Your task to perform on an android device: What's on my calendar today? Image 0: 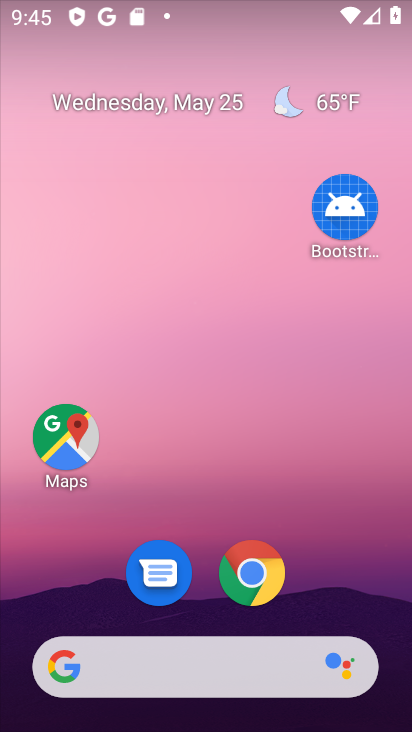
Step 0: drag from (337, 591) to (306, 88)
Your task to perform on an android device: What's on my calendar today? Image 1: 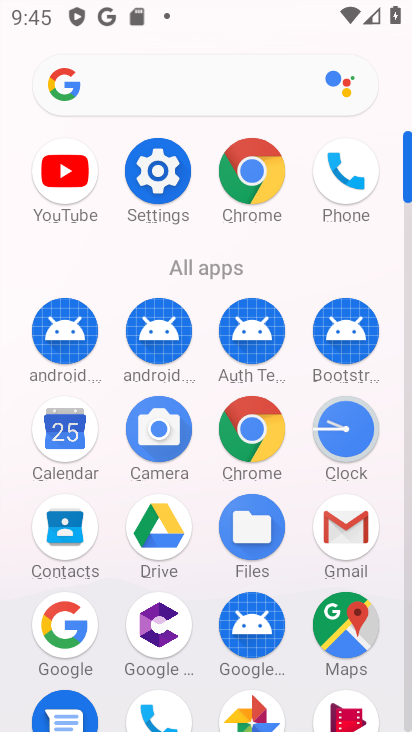
Step 1: click (63, 415)
Your task to perform on an android device: What's on my calendar today? Image 2: 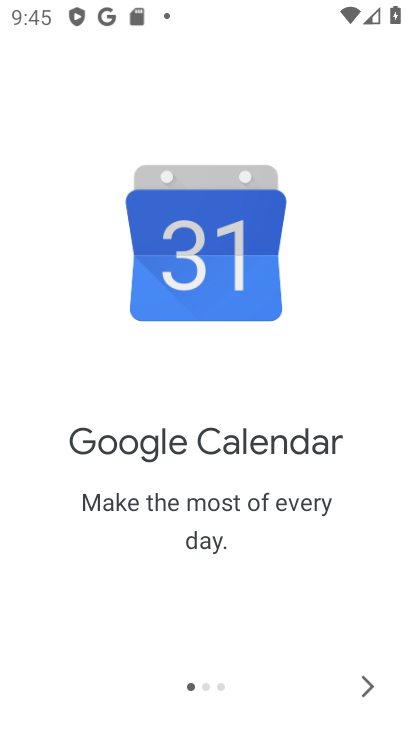
Step 2: click (359, 687)
Your task to perform on an android device: What's on my calendar today? Image 3: 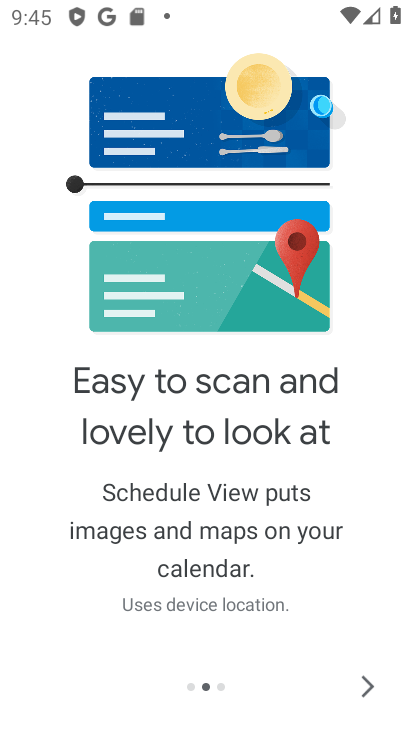
Step 3: click (359, 688)
Your task to perform on an android device: What's on my calendar today? Image 4: 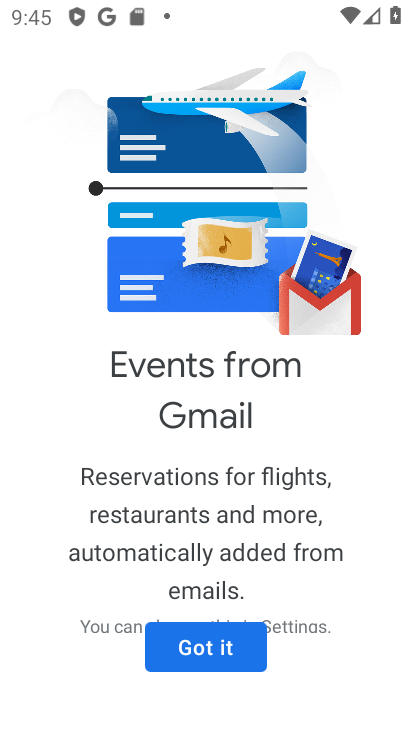
Step 4: click (206, 632)
Your task to perform on an android device: What's on my calendar today? Image 5: 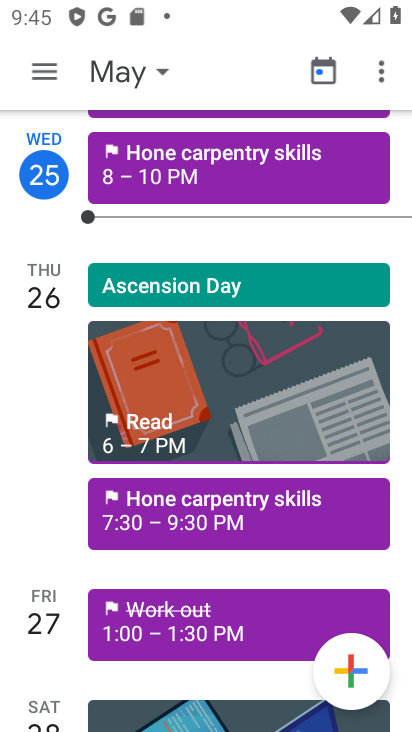
Step 5: click (36, 59)
Your task to perform on an android device: What's on my calendar today? Image 6: 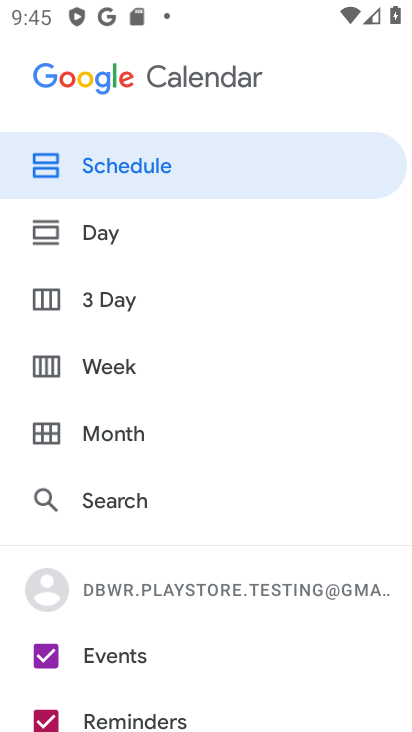
Step 6: click (132, 242)
Your task to perform on an android device: What's on my calendar today? Image 7: 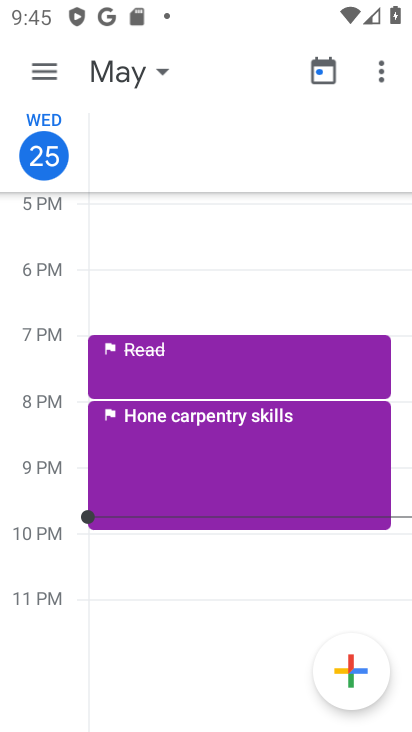
Step 7: task complete